Your task to perform on an android device: change notification settings in the gmail app Image 0: 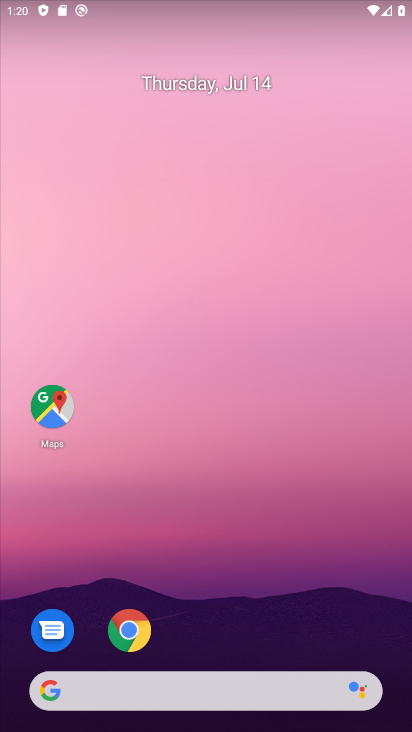
Step 0: drag from (275, 516) to (350, 38)
Your task to perform on an android device: change notification settings in the gmail app Image 1: 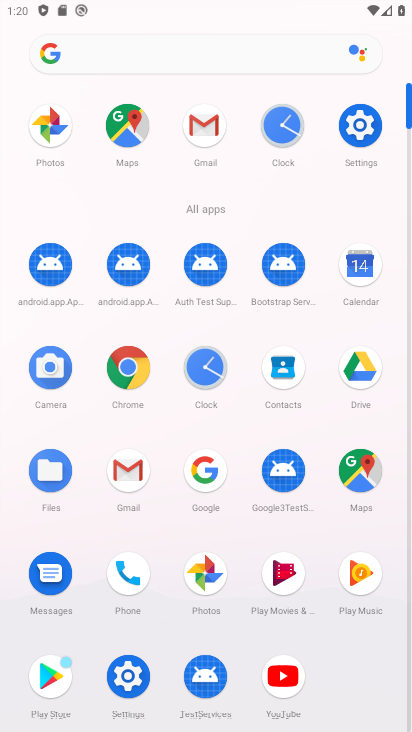
Step 1: click (135, 475)
Your task to perform on an android device: change notification settings in the gmail app Image 2: 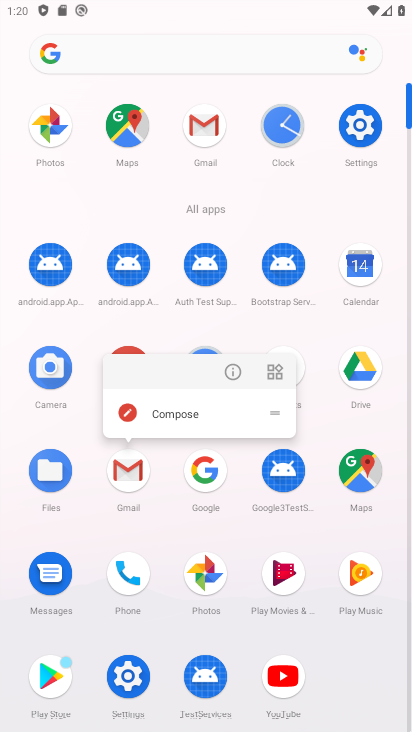
Step 2: click (208, 127)
Your task to perform on an android device: change notification settings in the gmail app Image 3: 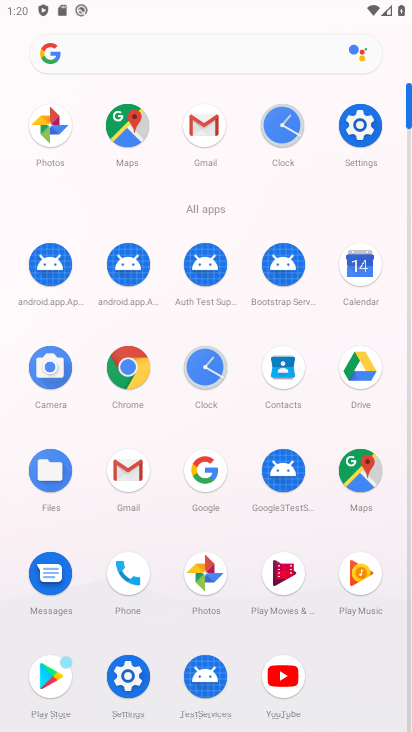
Step 3: click (198, 124)
Your task to perform on an android device: change notification settings in the gmail app Image 4: 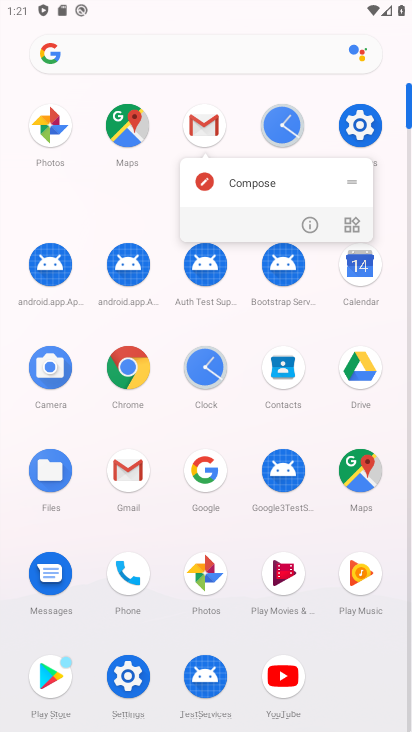
Step 4: click (307, 219)
Your task to perform on an android device: change notification settings in the gmail app Image 5: 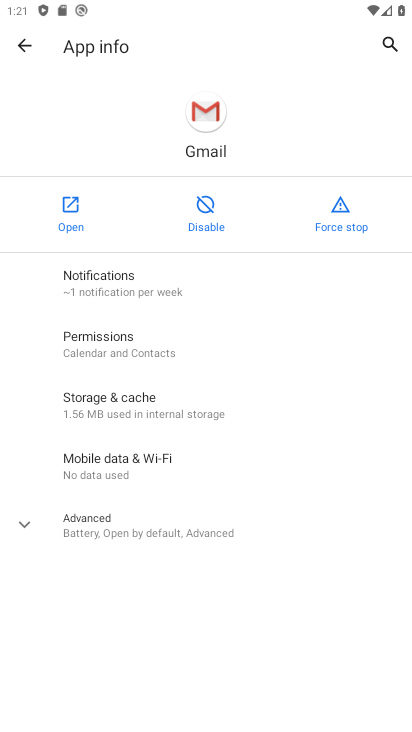
Step 5: click (150, 284)
Your task to perform on an android device: change notification settings in the gmail app Image 6: 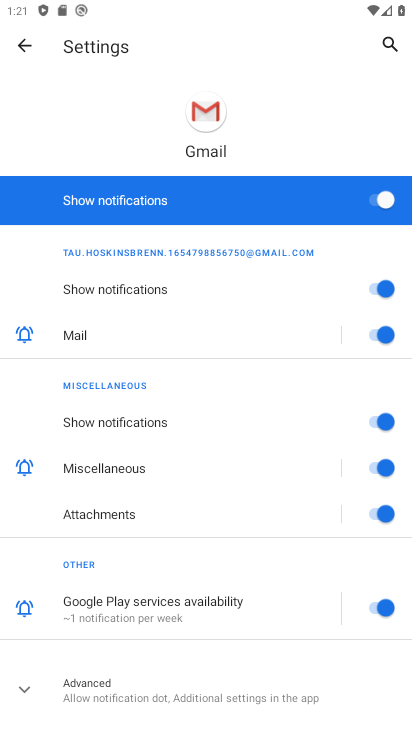
Step 6: click (383, 286)
Your task to perform on an android device: change notification settings in the gmail app Image 7: 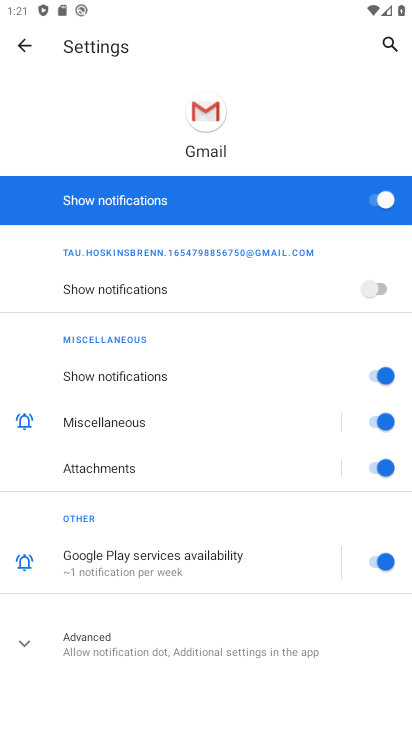
Step 7: task complete